Your task to perform on an android device: Open Reddit.com Image 0: 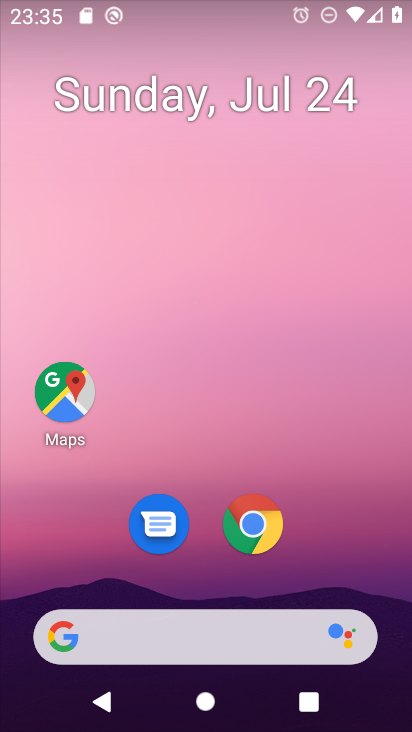
Step 0: press home button
Your task to perform on an android device: Open Reddit.com Image 1: 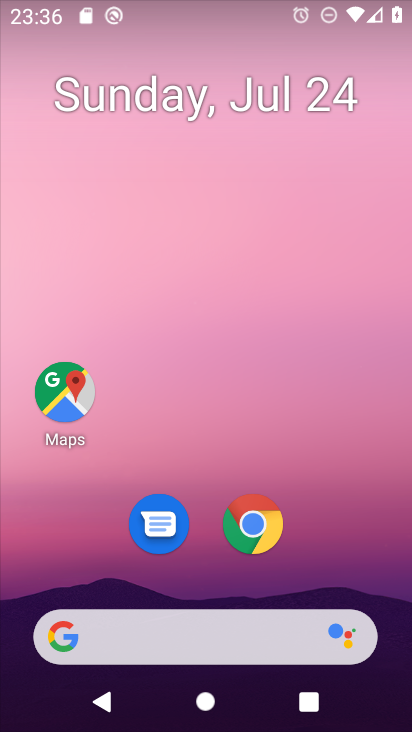
Step 1: click (255, 537)
Your task to perform on an android device: Open Reddit.com Image 2: 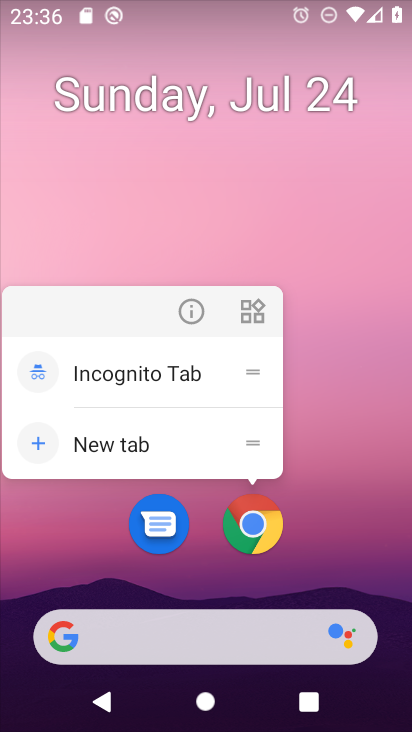
Step 2: click (250, 525)
Your task to perform on an android device: Open Reddit.com Image 3: 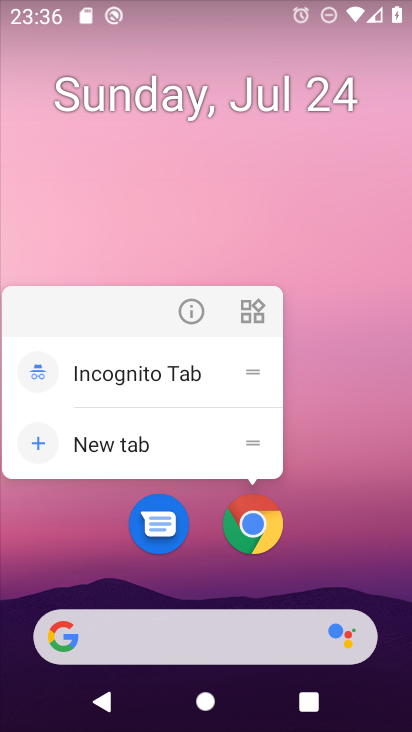
Step 3: click (250, 527)
Your task to perform on an android device: Open Reddit.com Image 4: 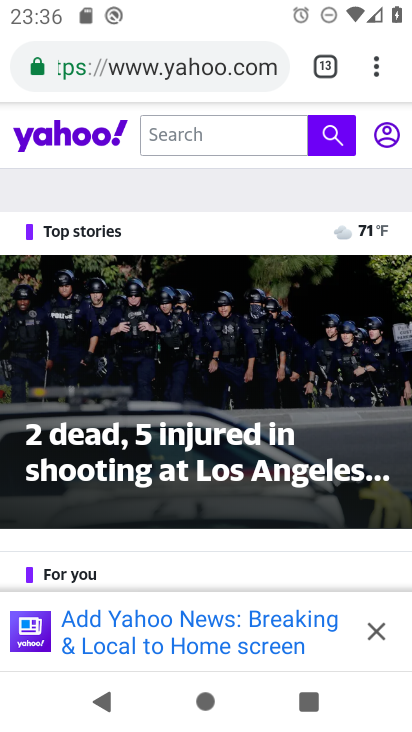
Step 4: drag from (373, 67) to (236, 126)
Your task to perform on an android device: Open Reddit.com Image 5: 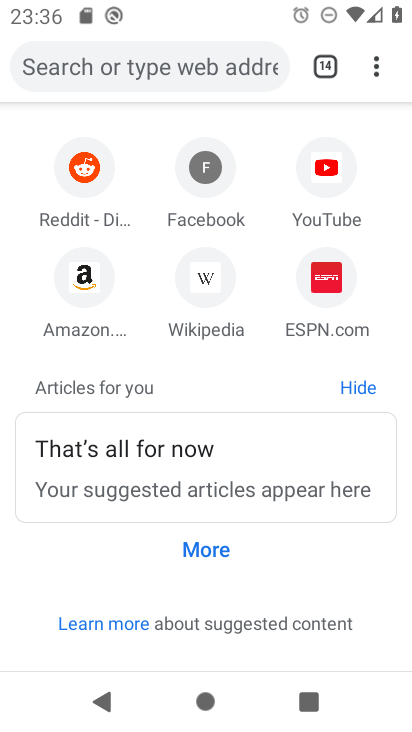
Step 5: click (85, 181)
Your task to perform on an android device: Open Reddit.com Image 6: 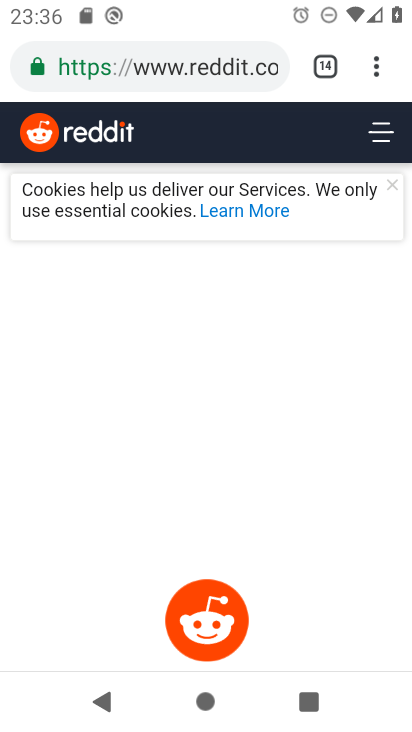
Step 6: task complete